Your task to perform on an android device: Go to internet settings Image 0: 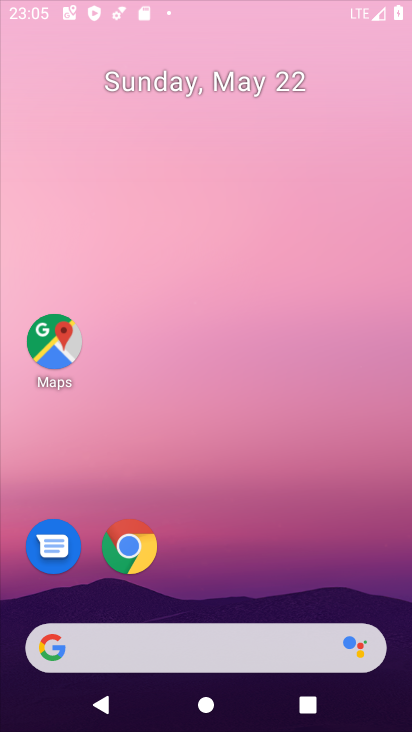
Step 0: click (312, 59)
Your task to perform on an android device: Go to internet settings Image 1: 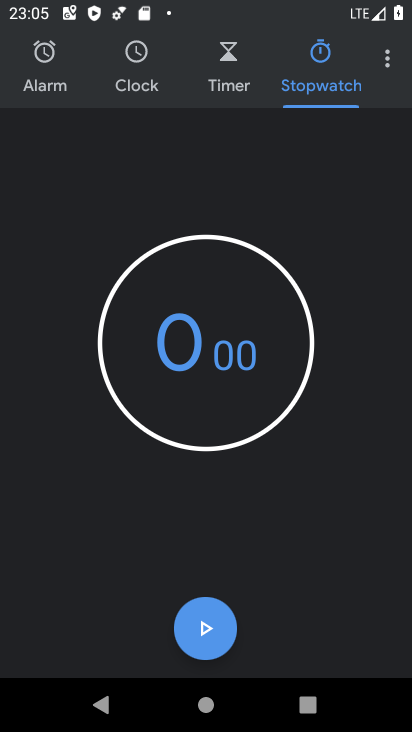
Step 1: drag from (309, 493) to (327, 233)
Your task to perform on an android device: Go to internet settings Image 2: 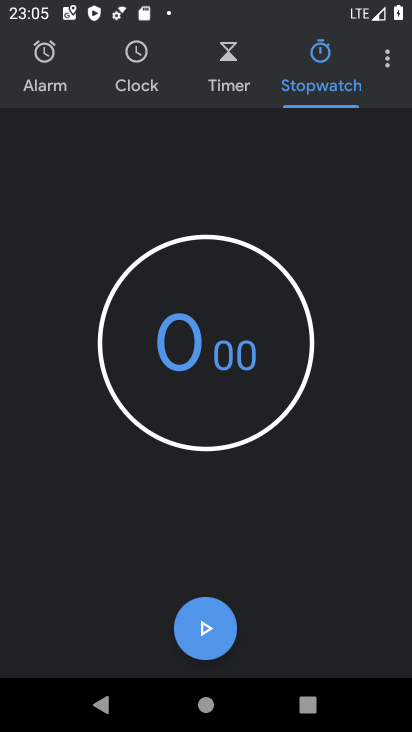
Step 2: click (240, 69)
Your task to perform on an android device: Go to internet settings Image 3: 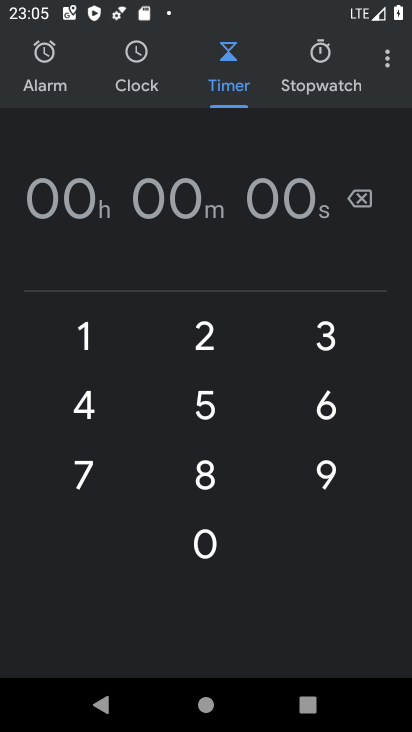
Step 3: click (316, 69)
Your task to perform on an android device: Go to internet settings Image 4: 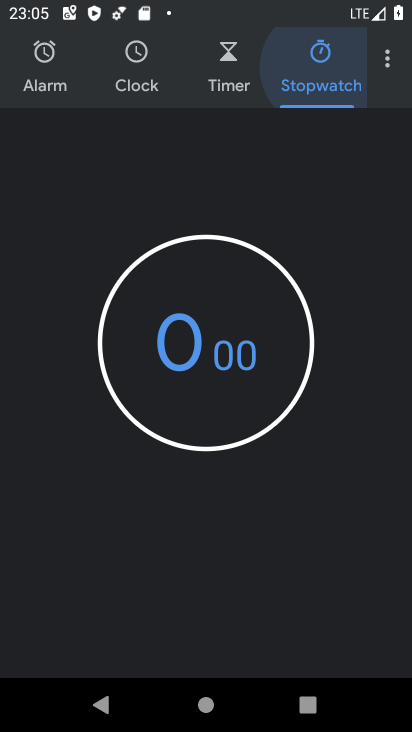
Step 4: click (221, 62)
Your task to perform on an android device: Go to internet settings Image 5: 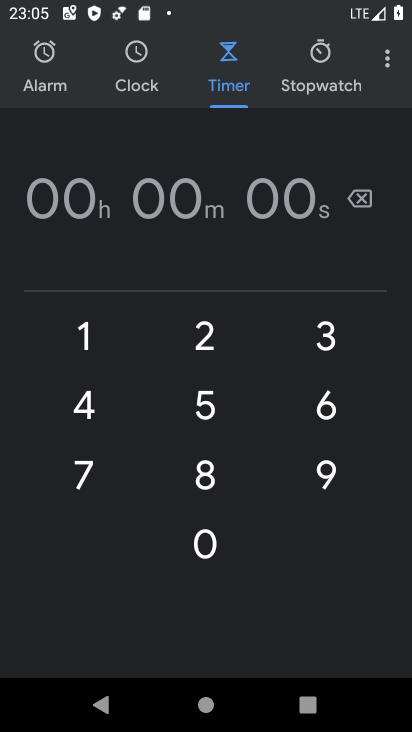
Step 5: click (121, 57)
Your task to perform on an android device: Go to internet settings Image 6: 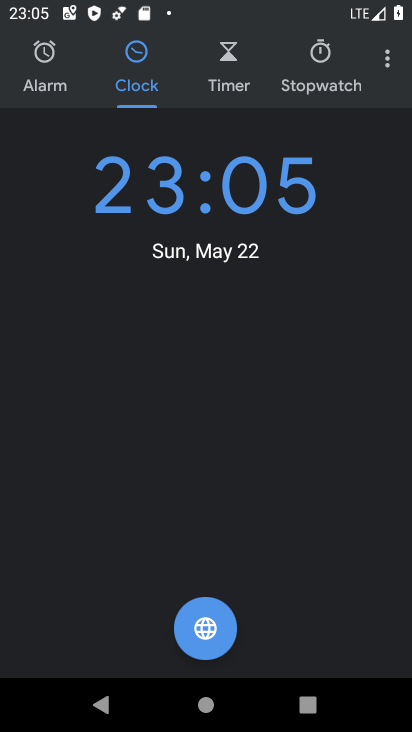
Step 6: click (54, 57)
Your task to perform on an android device: Go to internet settings Image 7: 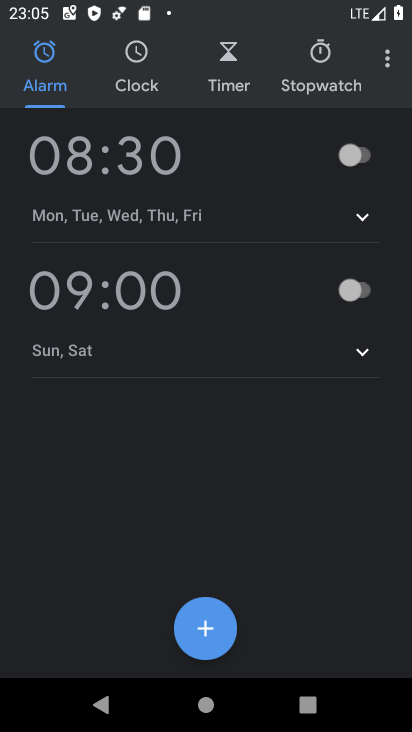
Step 7: click (234, 85)
Your task to perform on an android device: Go to internet settings Image 8: 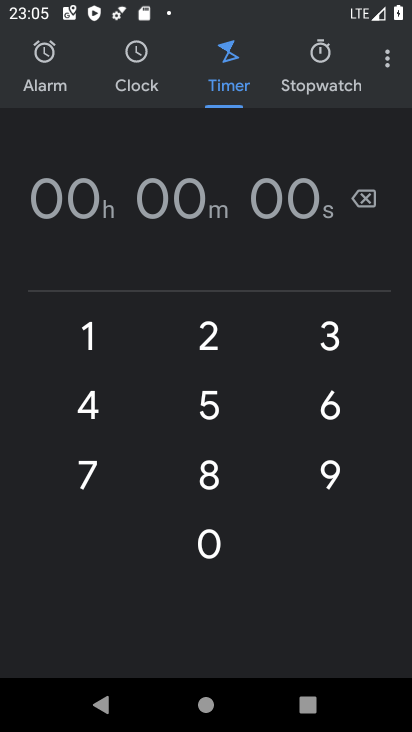
Step 8: click (374, 70)
Your task to perform on an android device: Go to internet settings Image 9: 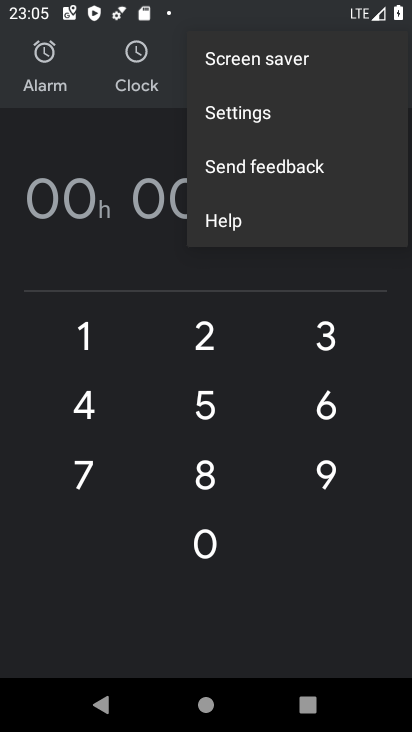
Step 9: click (111, 63)
Your task to perform on an android device: Go to internet settings Image 10: 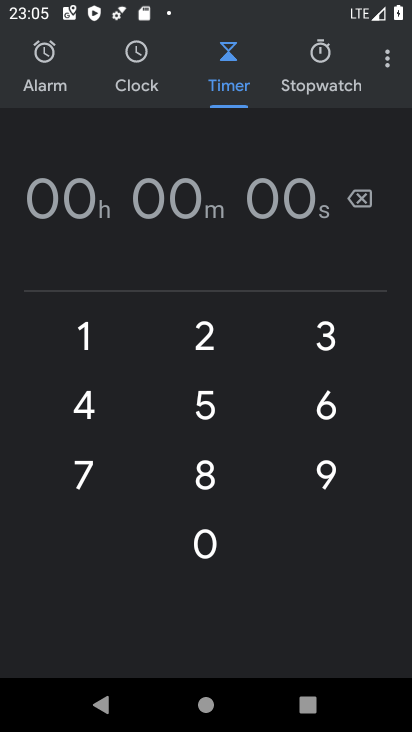
Step 10: click (304, 75)
Your task to perform on an android device: Go to internet settings Image 11: 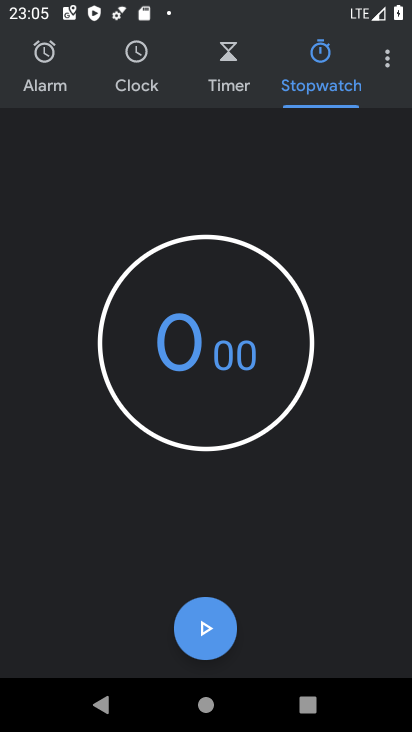
Step 11: press home button
Your task to perform on an android device: Go to internet settings Image 12: 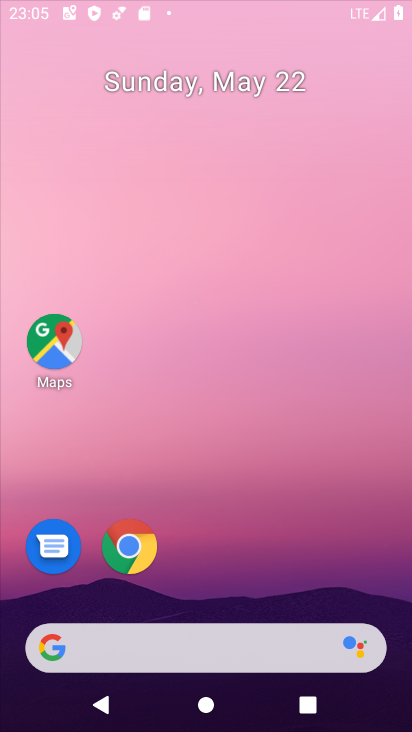
Step 12: drag from (233, 516) to (266, 128)
Your task to perform on an android device: Go to internet settings Image 13: 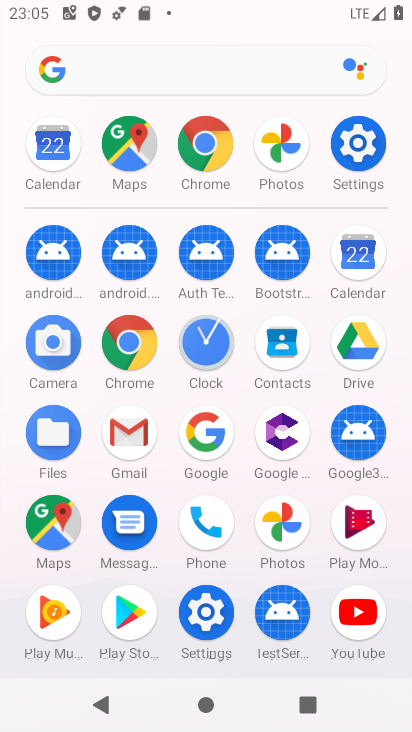
Step 13: drag from (174, 551) to (226, 142)
Your task to perform on an android device: Go to internet settings Image 14: 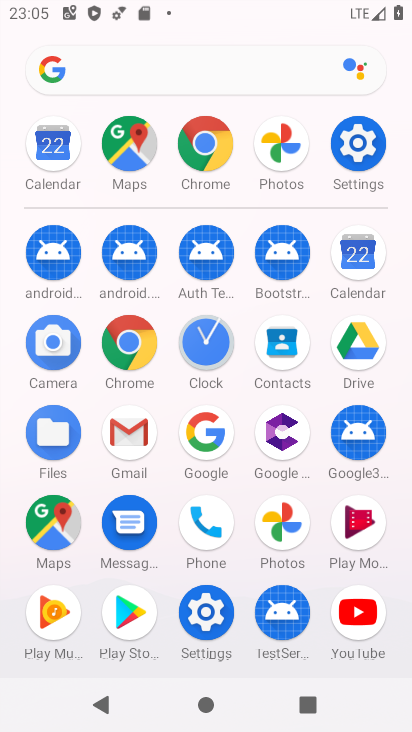
Step 14: drag from (238, 574) to (253, 332)
Your task to perform on an android device: Go to internet settings Image 15: 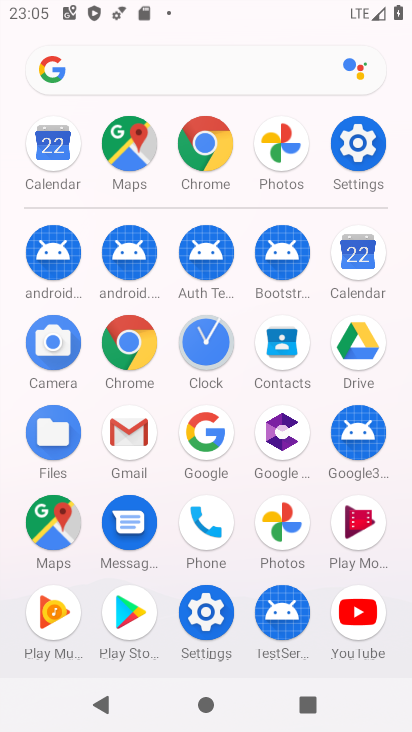
Step 15: click (358, 155)
Your task to perform on an android device: Go to internet settings Image 16: 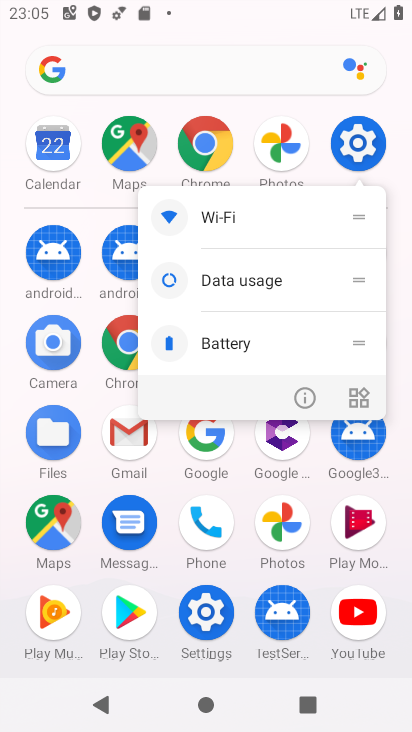
Step 16: click (292, 385)
Your task to perform on an android device: Go to internet settings Image 17: 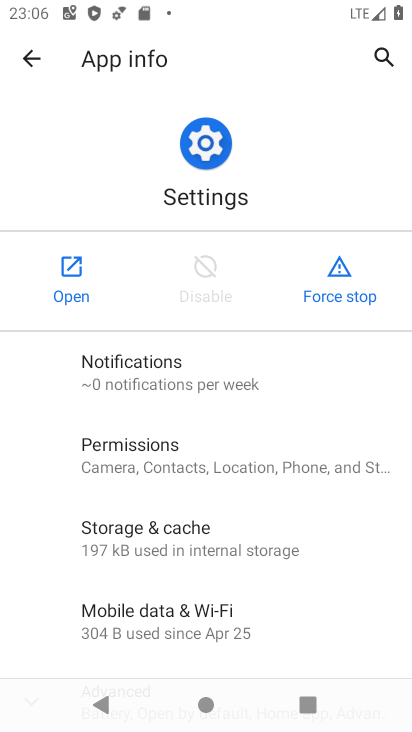
Step 17: click (70, 268)
Your task to perform on an android device: Go to internet settings Image 18: 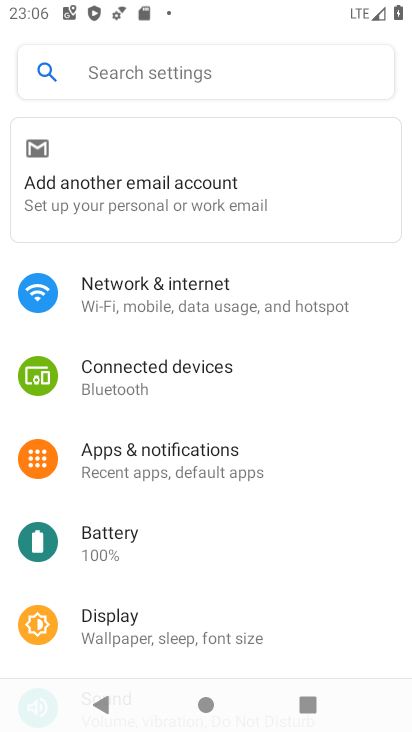
Step 18: click (158, 306)
Your task to perform on an android device: Go to internet settings Image 19: 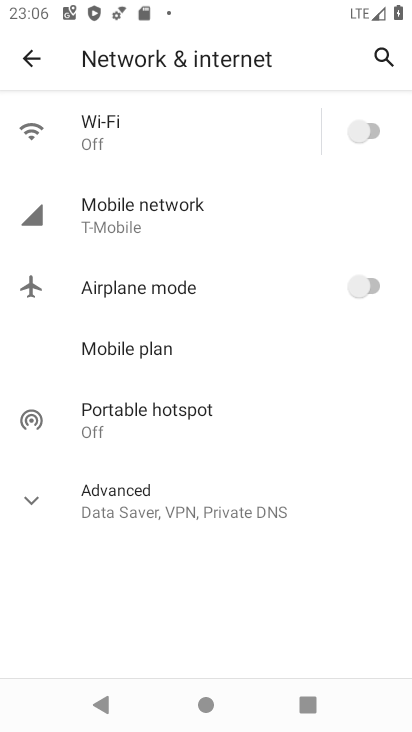
Step 19: click (206, 207)
Your task to perform on an android device: Go to internet settings Image 20: 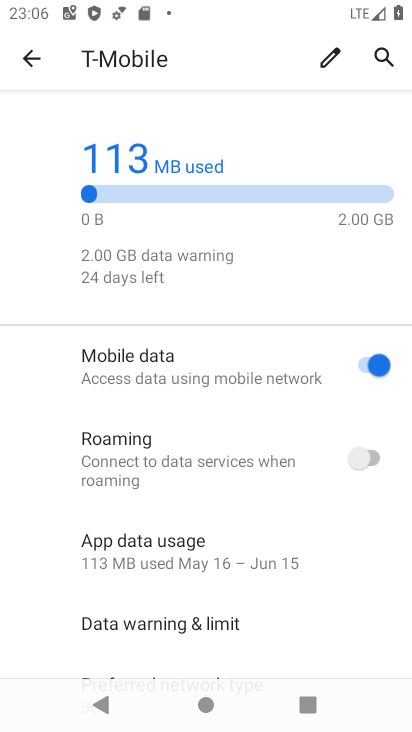
Step 20: task complete